Your task to perform on an android device: Open my contact list Image 0: 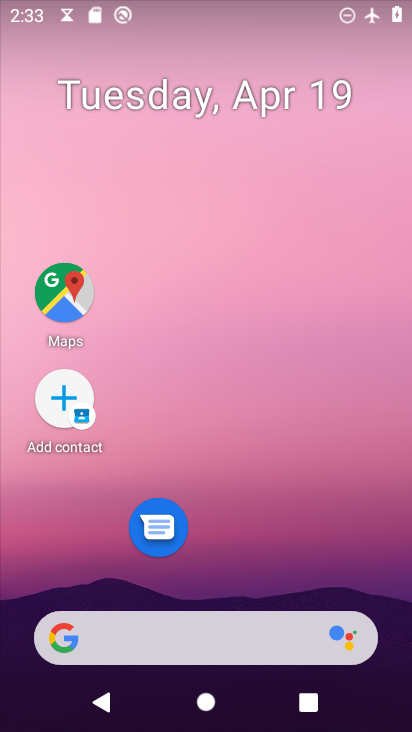
Step 0: drag from (234, 296) to (231, 147)
Your task to perform on an android device: Open my contact list Image 1: 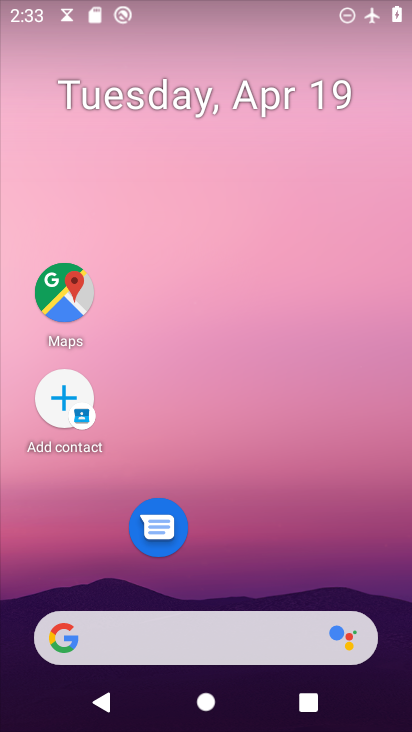
Step 1: drag from (292, 414) to (274, 21)
Your task to perform on an android device: Open my contact list Image 2: 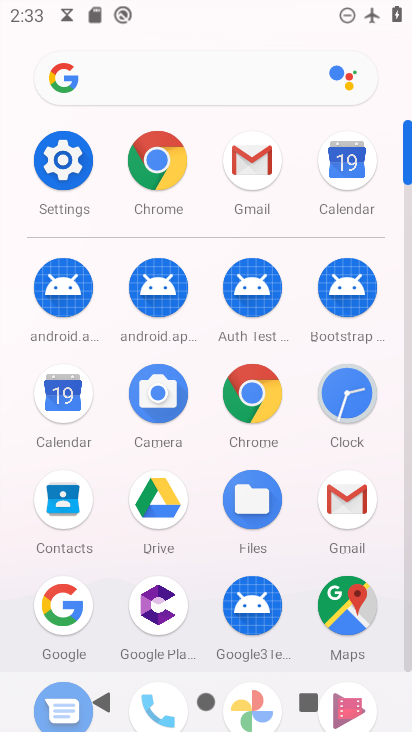
Step 2: click (67, 500)
Your task to perform on an android device: Open my contact list Image 3: 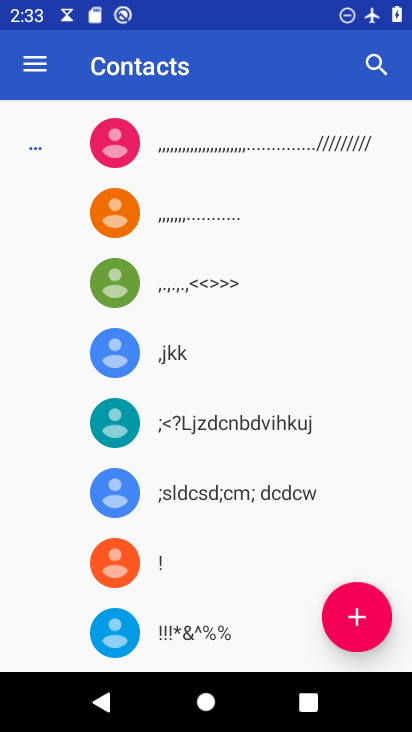
Step 3: task complete